Your task to perform on an android device: install app "Messages" Image 0: 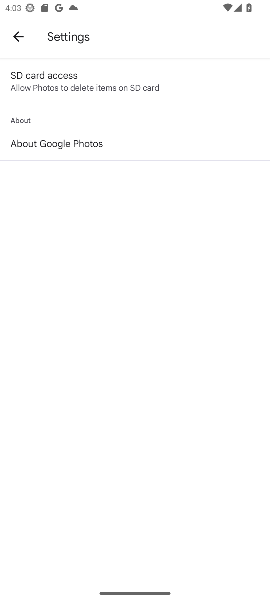
Step 0: press home button
Your task to perform on an android device: install app "Messages" Image 1: 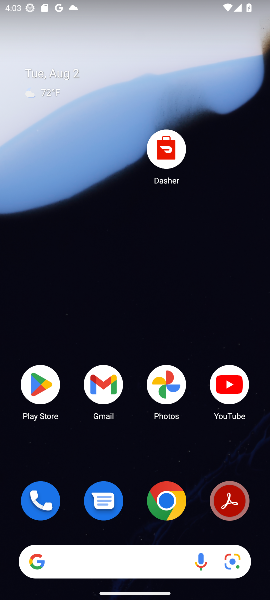
Step 1: click (40, 380)
Your task to perform on an android device: install app "Messages" Image 2: 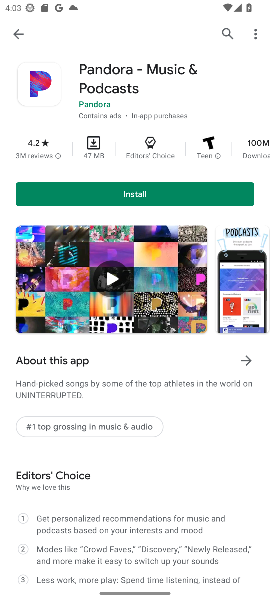
Step 2: click (222, 31)
Your task to perform on an android device: install app "Messages" Image 3: 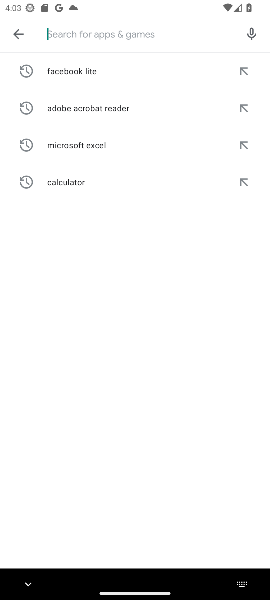
Step 3: type "Messages"
Your task to perform on an android device: install app "Messages" Image 4: 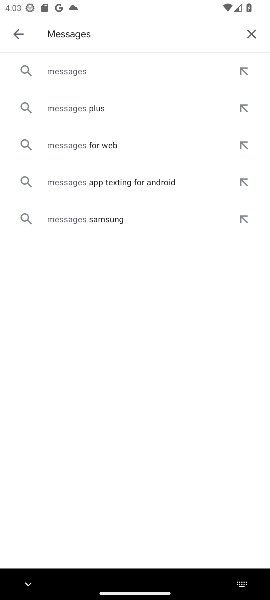
Step 4: click (66, 77)
Your task to perform on an android device: install app "Messages" Image 5: 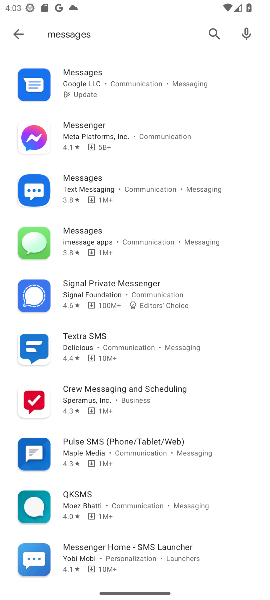
Step 5: click (75, 84)
Your task to perform on an android device: install app "Messages" Image 6: 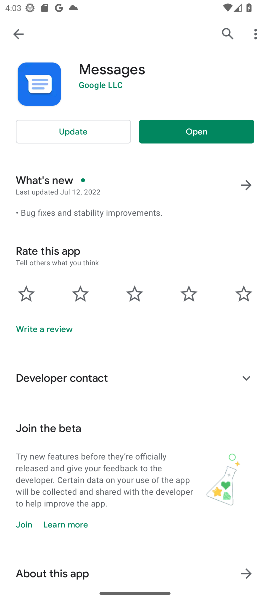
Step 6: task complete